Your task to perform on an android device: What's the weather going to be this weekend? Image 0: 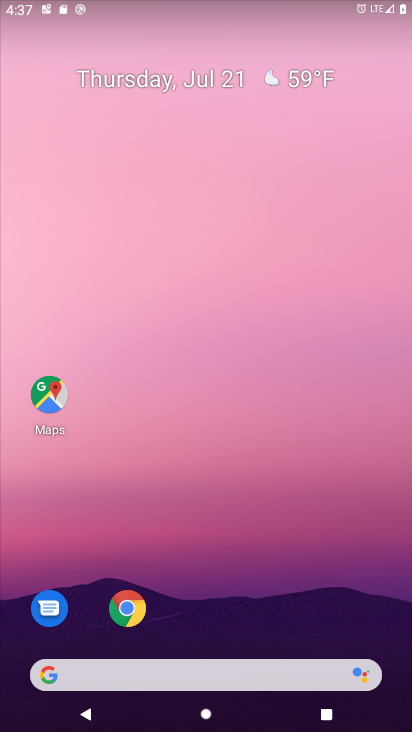
Step 0: drag from (260, 620) to (314, 2)
Your task to perform on an android device: What's the weather going to be this weekend? Image 1: 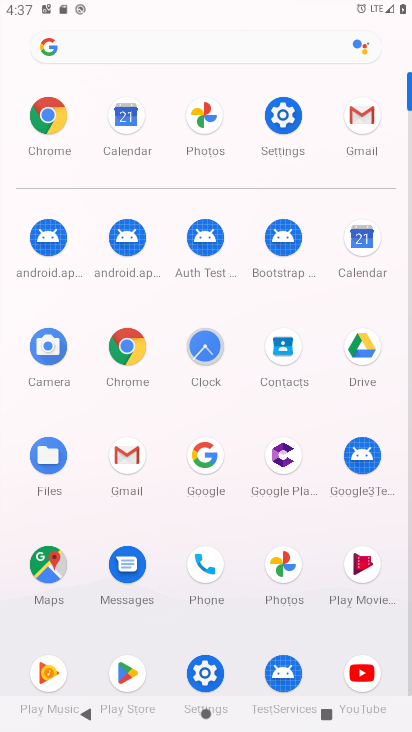
Step 1: click (124, 335)
Your task to perform on an android device: What's the weather going to be this weekend? Image 2: 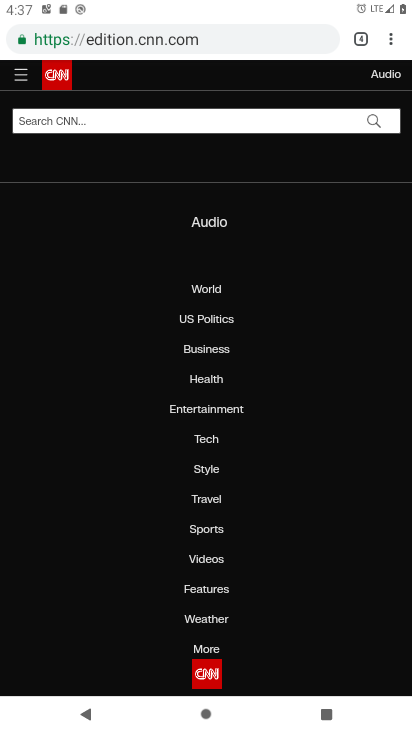
Step 2: click (179, 52)
Your task to perform on an android device: What's the weather going to be this weekend? Image 3: 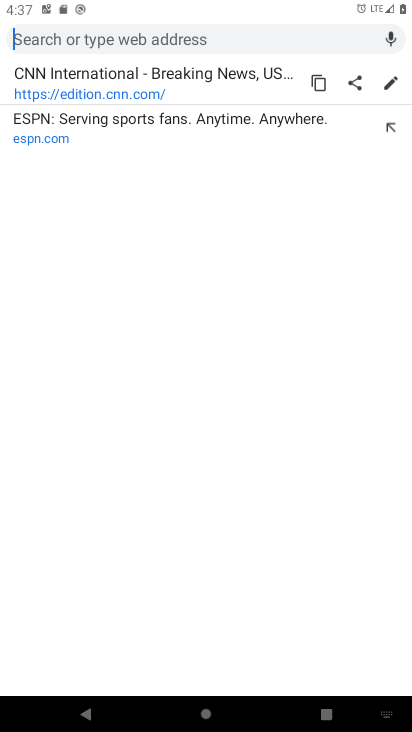
Step 3: type "weather going to be this weekend"
Your task to perform on an android device: What's the weather going to be this weekend? Image 4: 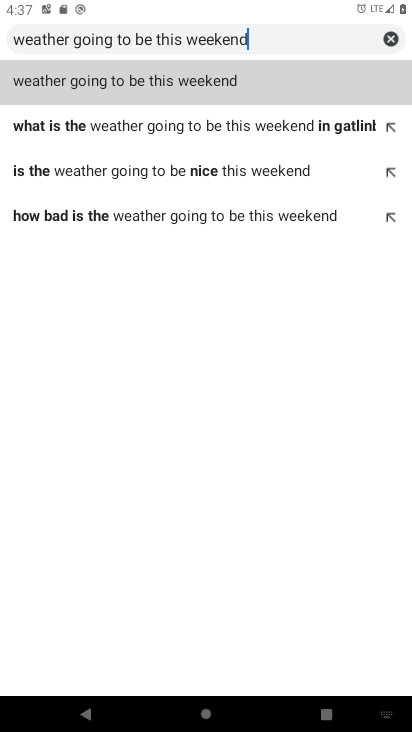
Step 4: click (219, 85)
Your task to perform on an android device: What's the weather going to be this weekend? Image 5: 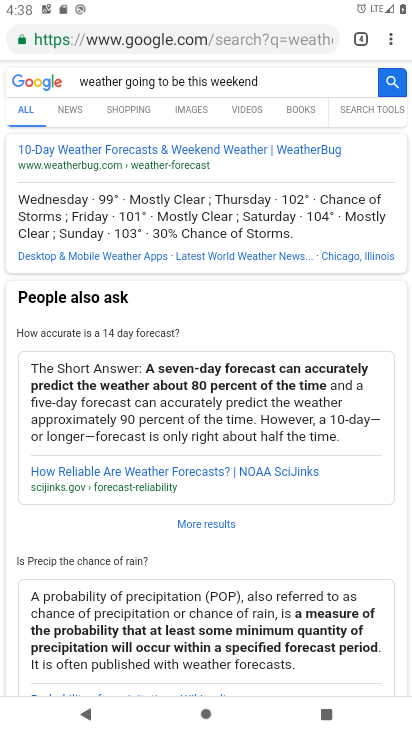
Step 5: task complete